Your task to perform on an android device: turn smart compose on in the gmail app Image 0: 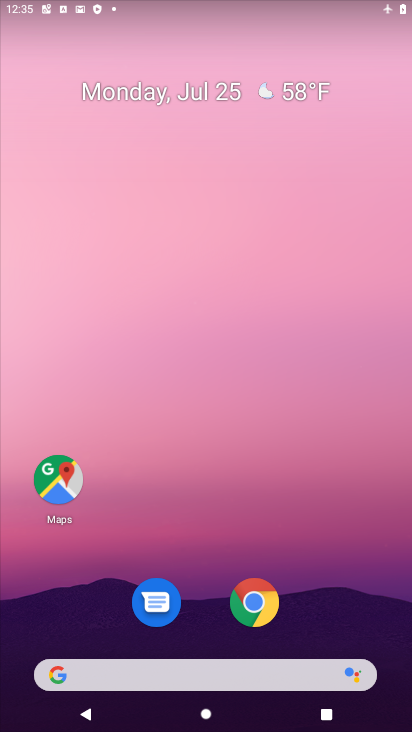
Step 0: drag from (194, 577) to (173, 66)
Your task to perform on an android device: turn smart compose on in the gmail app Image 1: 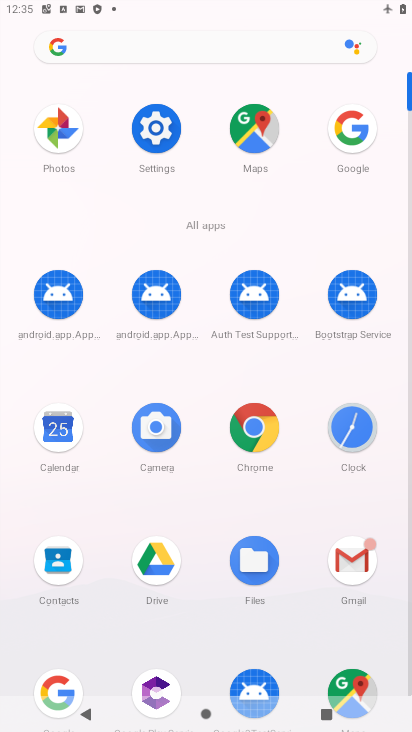
Step 1: click (334, 565)
Your task to perform on an android device: turn smart compose on in the gmail app Image 2: 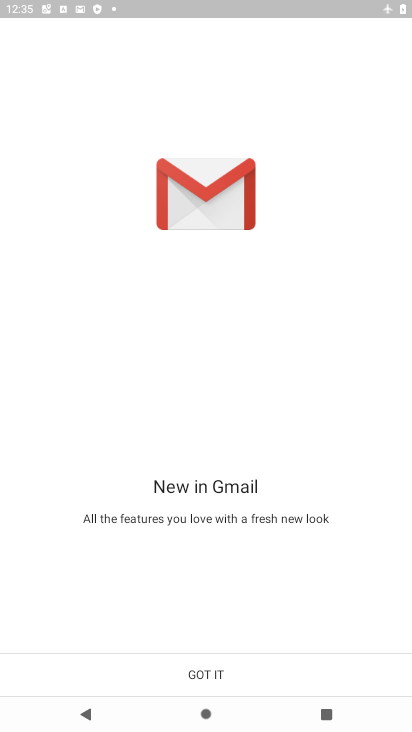
Step 2: click (210, 690)
Your task to perform on an android device: turn smart compose on in the gmail app Image 3: 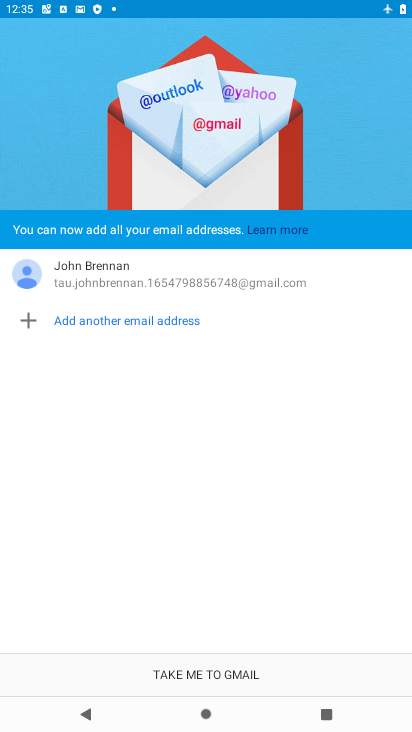
Step 3: click (250, 684)
Your task to perform on an android device: turn smart compose on in the gmail app Image 4: 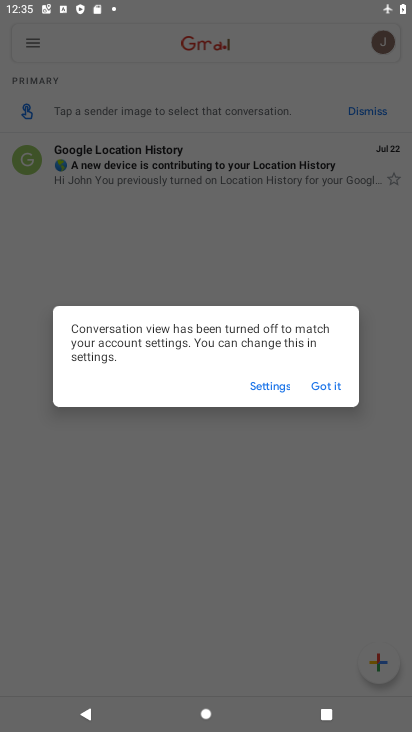
Step 4: click (334, 382)
Your task to perform on an android device: turn smart compose on in the gmail app Image 5: 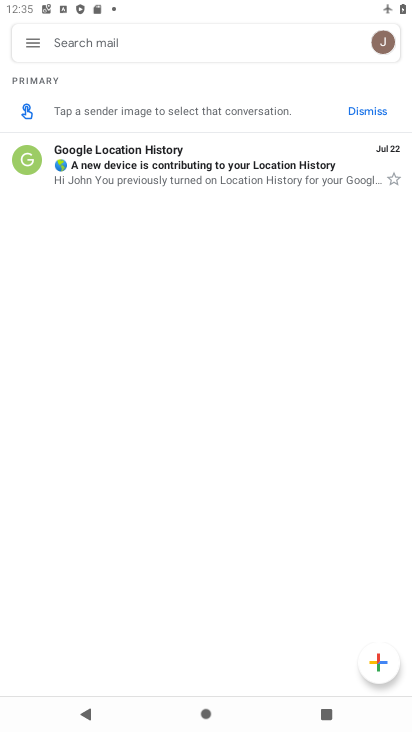
Step 5: click (28, 42)
Your task to perform on an android device: turn smart compose on in the gmail app Image 6: 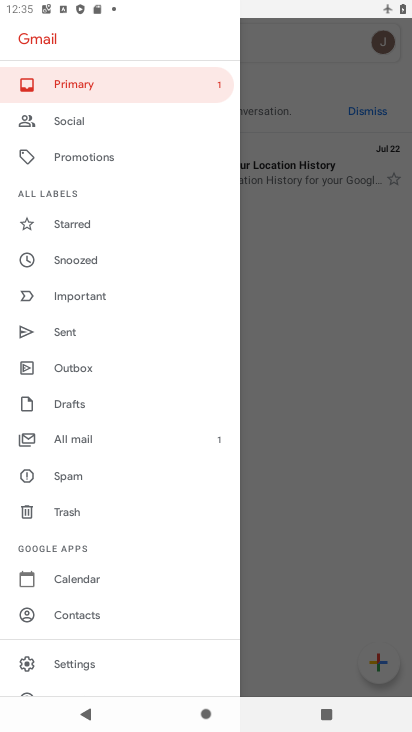
Step 6: click (77, 663)
Your task to perform on an android device: turn smart compose on in the gmail app Image 7: 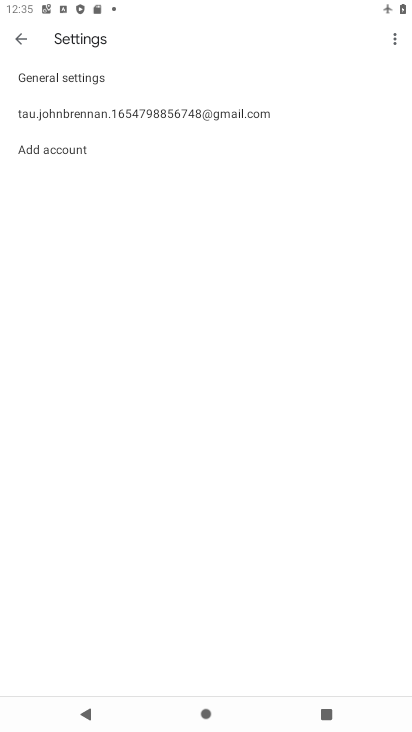
Step 7: click (175, 102)
Your task to perform on an android device: turn smart compose on in the gmail app Image 8: 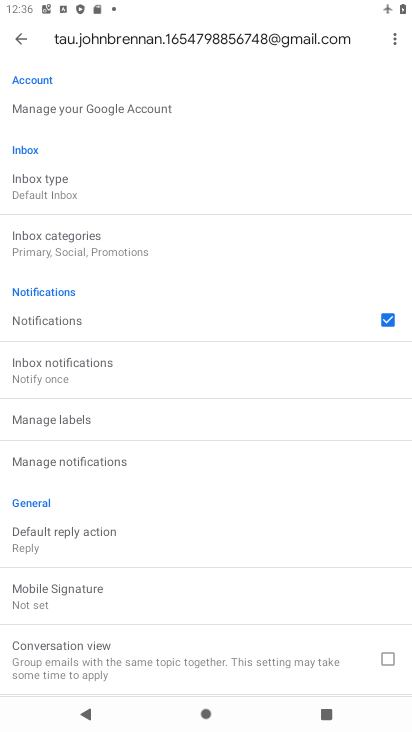
Step 8: task complete